Your task to perform on an android device: Open calendar and show me the third week of next month Image 0: 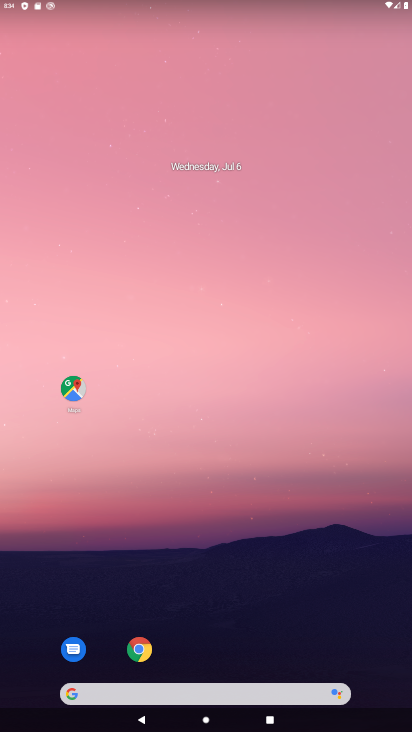
Step 0: drag from (214, 657) to (214, 1)
Your task to perform on an android device: Open calendar and show me the third week of next month Image 1: 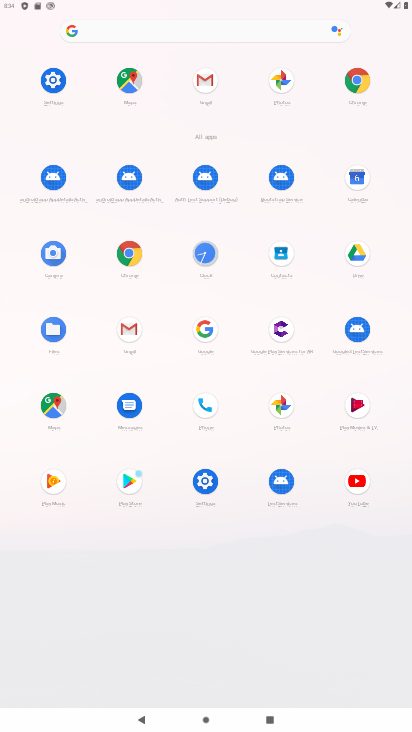
Step 1: click (358, 177)
Your task to perform on an android device: Open calendar and show me the third week of next month Image 2: 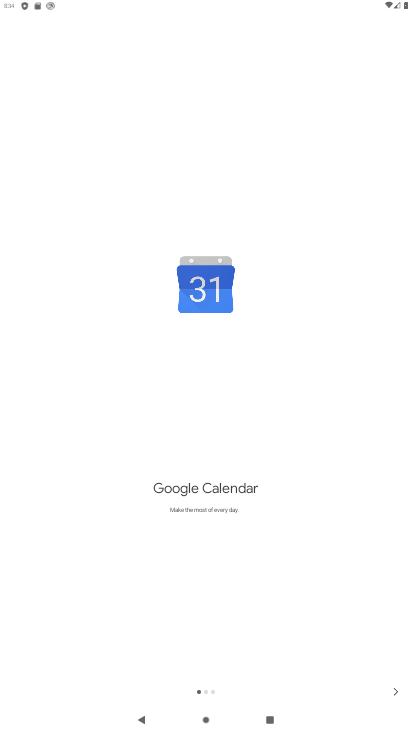
Step 2: click (389, 689)
Your task to perform on an android device: Open calendar and show me the third week of next month Image 3: 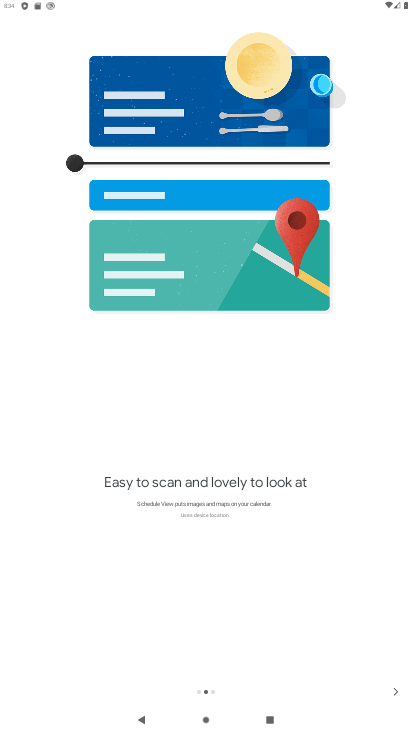
Step 3: click (391, 692)
Your task to perform on an android device: Open calendar and show me the third week of next month Image 4: 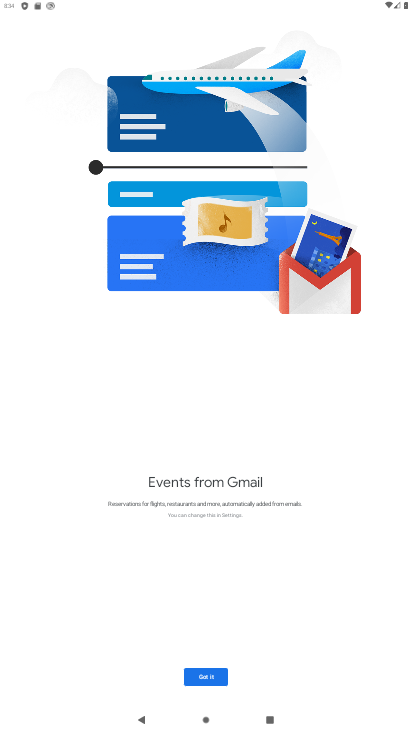
Step 4: click (201, 675)
Your task to perform on an android device: Open calendar and show me the third week of next month Image 5: 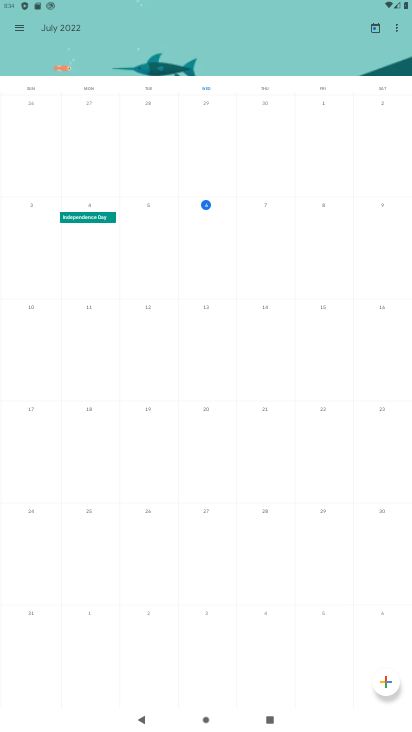
Step 5: drag from (371, 355) to (31, 460)
Your task to perform on an android device: Open calendar and show me the third week of next month Image 6: 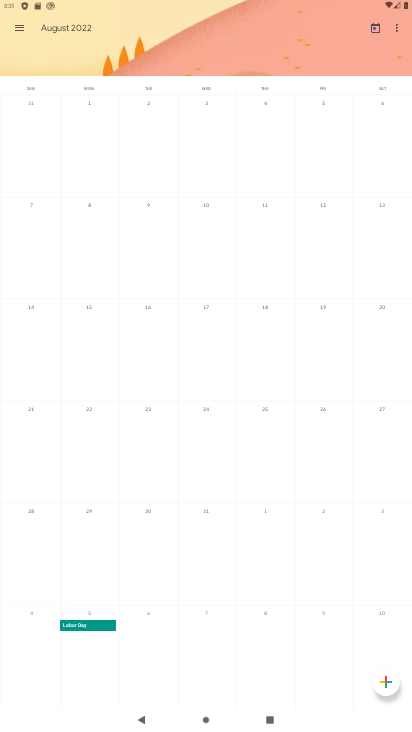
Step 6: click (14, 342)
Your task to perform on an android device: Open calendar and show me the third week of next month Image 7: 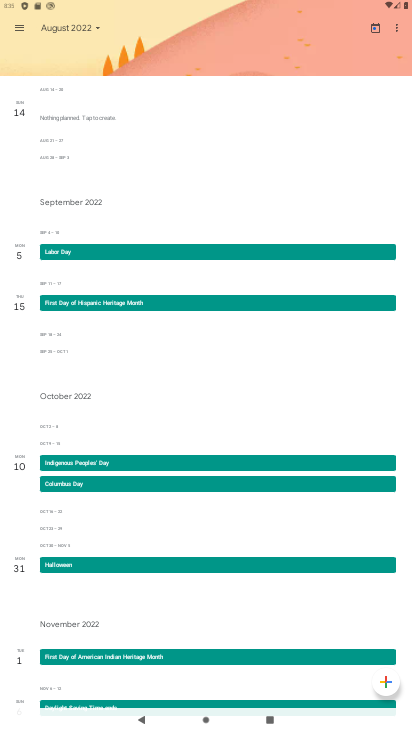
Step 7: click (16, 28)
Your task to perform on an android device: Open calendar and show me the third week of next month Image 8: 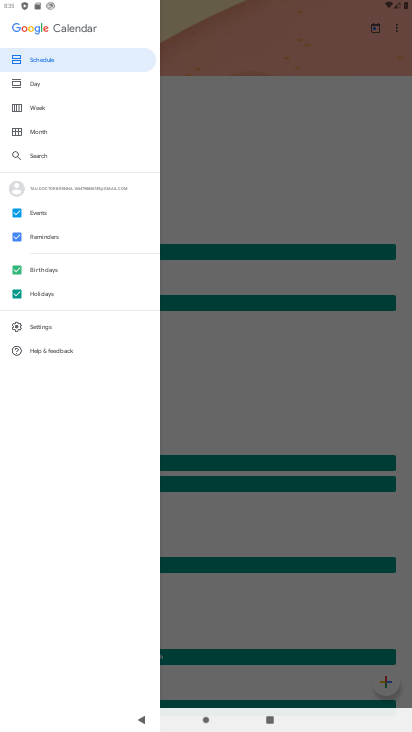
Step 8: click (41, 109)
Your task to perform on an android device: Open calendar and show me the third week of next month Image 9: 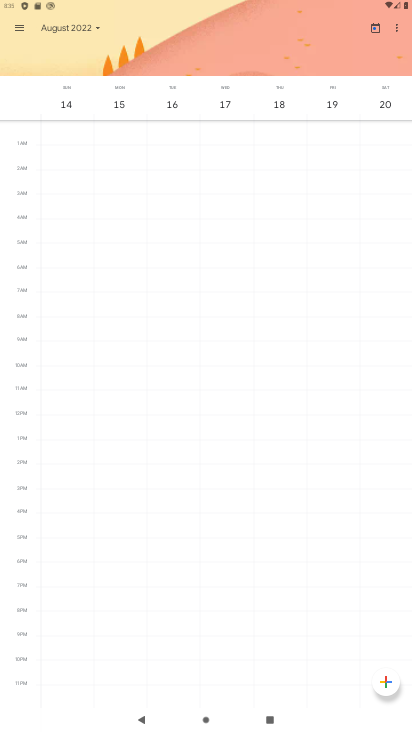
Step 9: click (64, 104)
Your task to perform on an android device: Open calendar and show me the third week of next month Image 10: 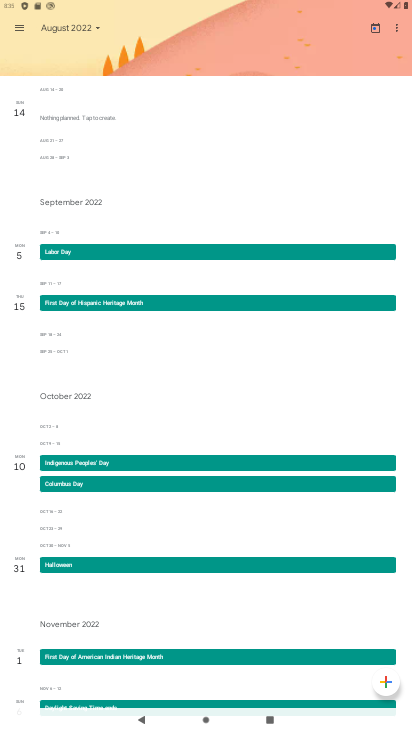
Step 10: task complete